Your task to perform on an android device: Open the phone app and click the voicemail tab. Image 0: 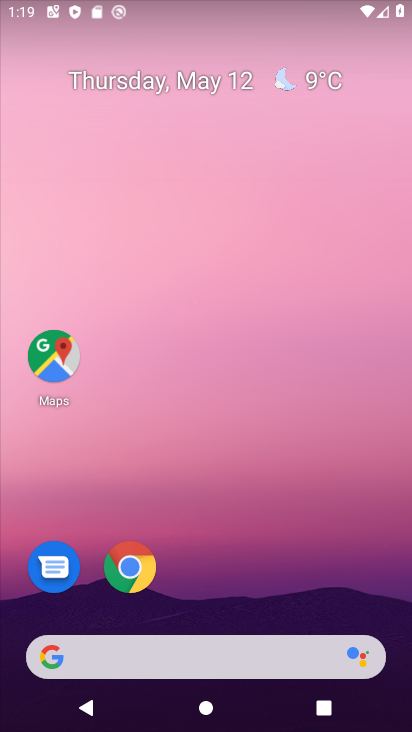
Step 0: drag from (207, 607) to (247, 69)
Your task to perform on an android device: Open the phone app and click the voicemail tab. Image 1: 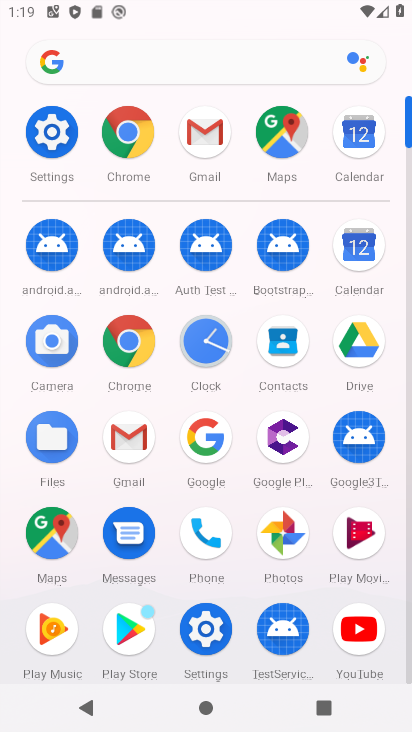
Step 1: click (209, 527)
Your task to perform on an android device: Open the phone app and click the voicemail tab. Image 2: 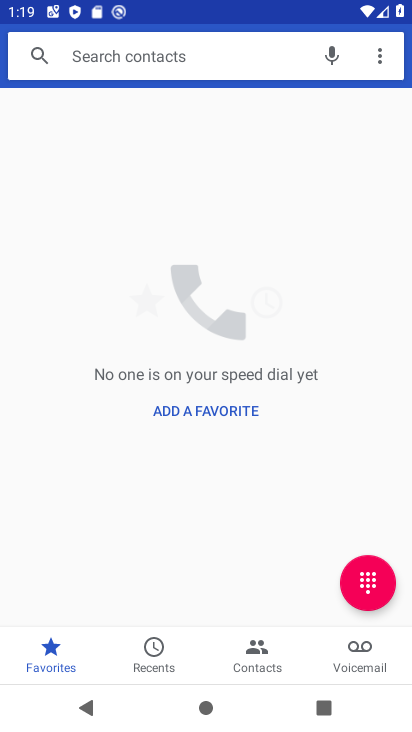
Step 2: click (362, 642)
Your task to perform on an android device: Open the phone app and click the voicemail tab. Image 3: 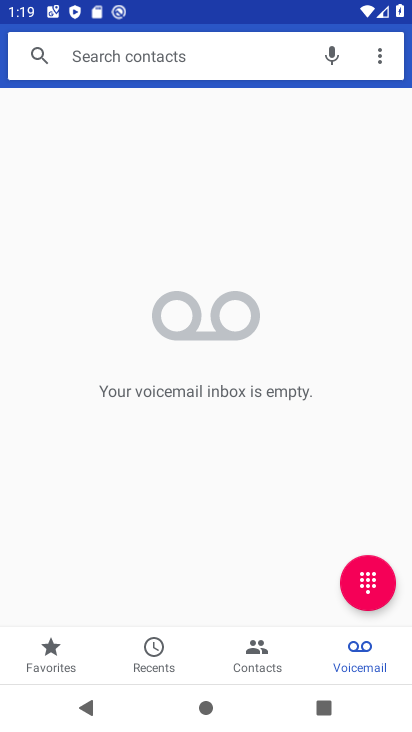
Step 3: task complete